Your task to perform on an android device: clear history in the chrome app Image 0: 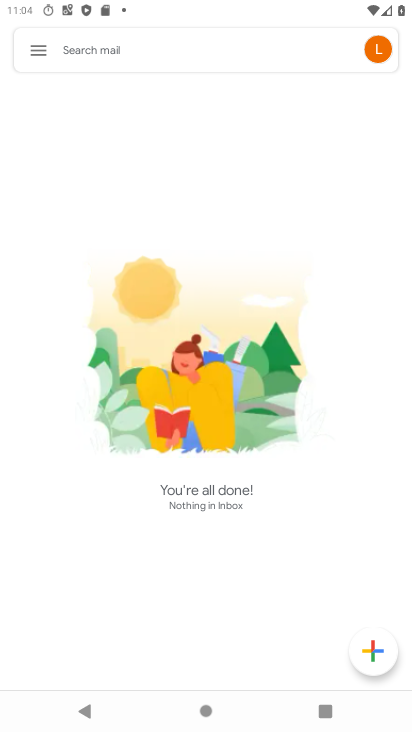
Step 0: press home button
Your task to perform on an android device: clear history in the chrome app Image 1: 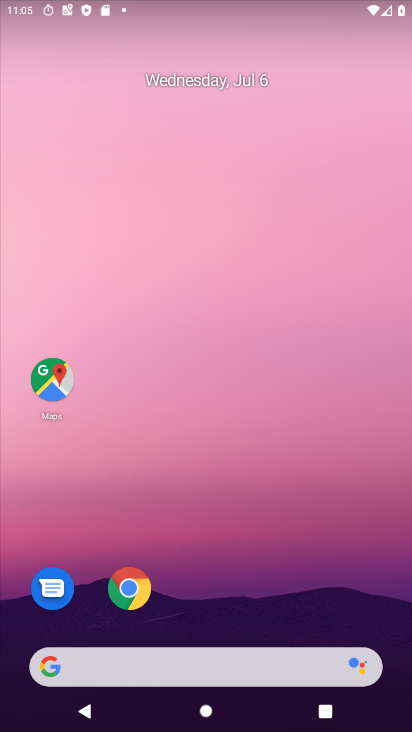
Step 1: click (133, 589)
Your task to perform on an android device: clear history in the chrome app Image 2: 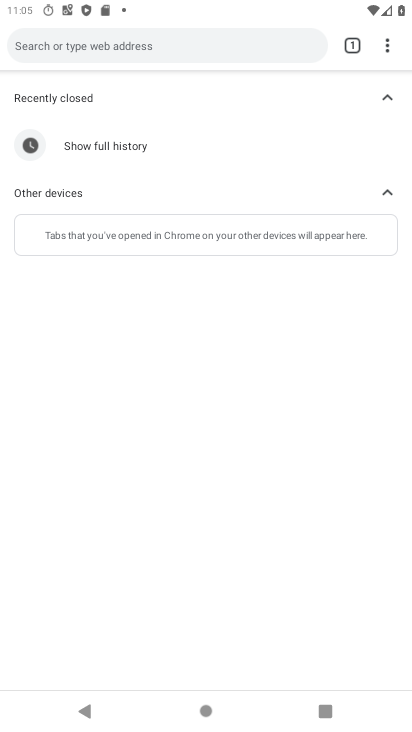
Step 2: click (388, 47)
Your task to perform on an android device: clear history in the chrome app Image 3: 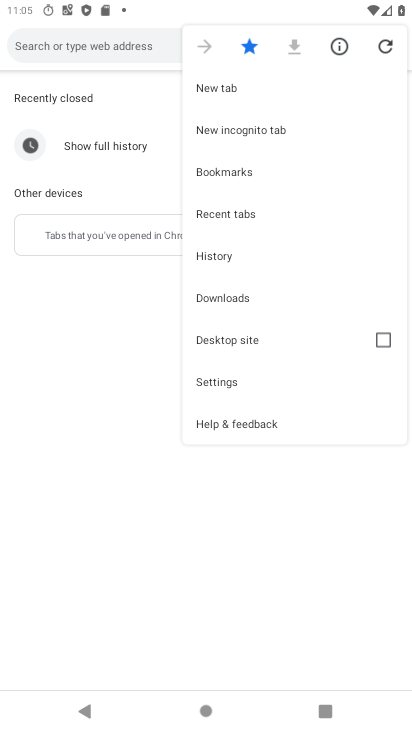
Step 3: click (215, 251)
Your task to perform on an android device: clear history in the chrome app Image 4: 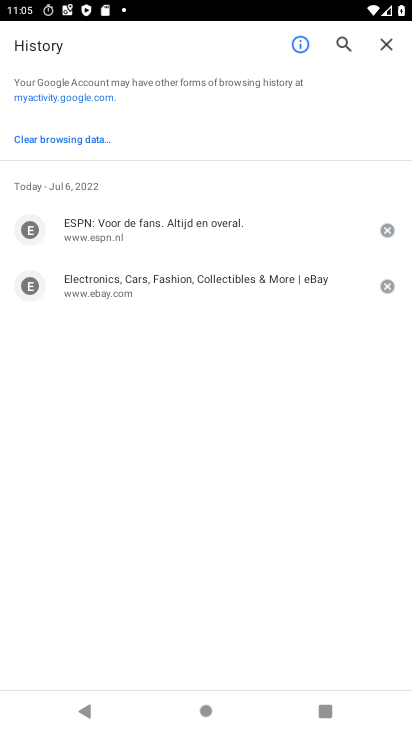
Step 4: click (49, 140)
Your task to perform on an android device: clear history in the chrome app Image 5: 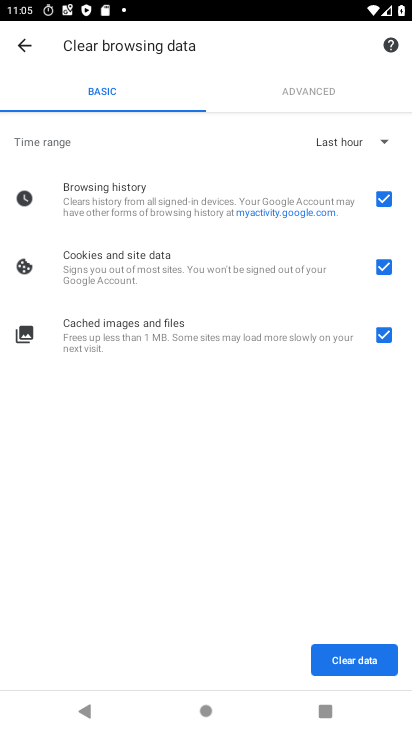
Step 5: click (378, 337)
Your task to perform on an android device: clear history in the chrome app Image 6: 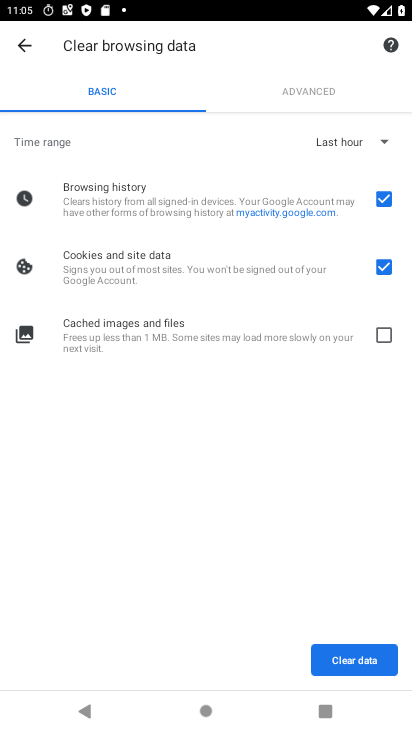
Step 6: click (384, 261)
Your task to perform on an android device: clear history in the chrome app Image 7: 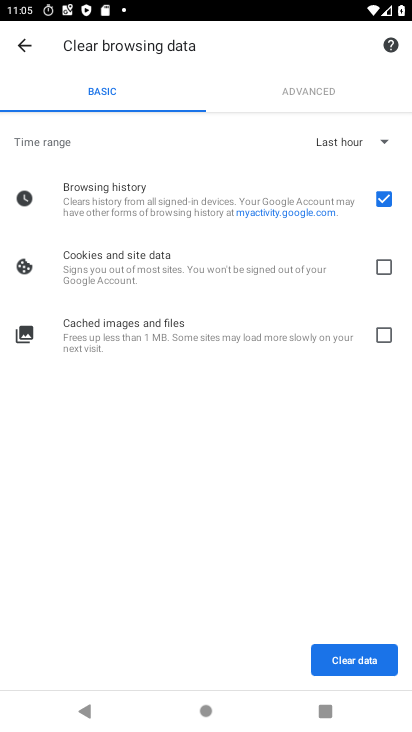
Step 7: click (368, 659)
Your task to perform on an android device: clear history in the chrome app Image 8: 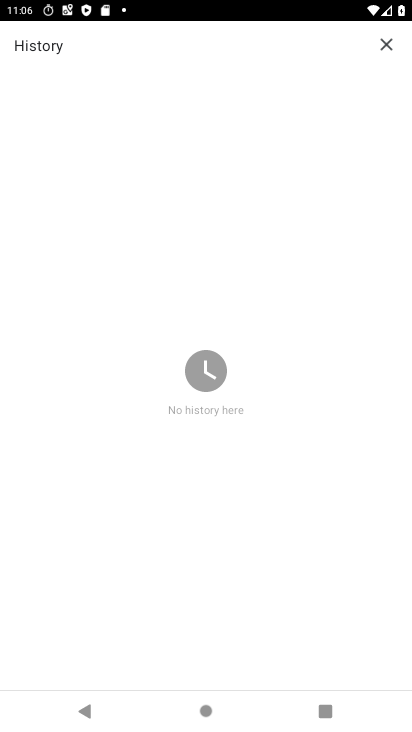
Step 8: task complete